Your task to perform on an android device: When is my next appointment? Image 0: 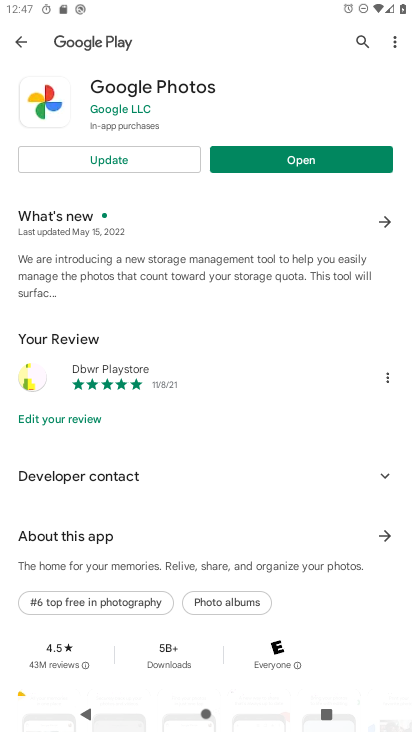
Step 0: press home button
Your task to perform on an android device: When is my next appointment? Image 1: 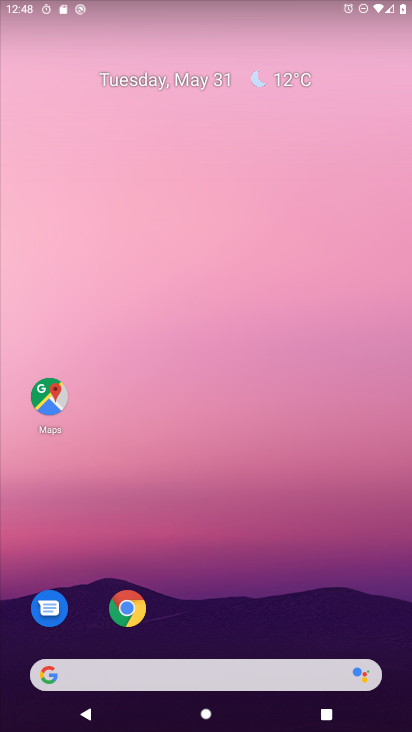
Step 1: drag from (258, 644) to (282, 0)
Your task to perform on an android device: When is my next appointment? Image 2: 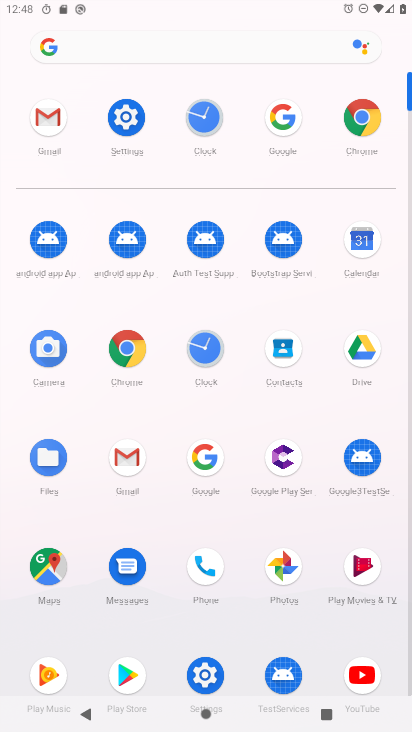
Step 2: click (359, 242)
Your task to perform on an android device: When is my next appointment? Image 3: 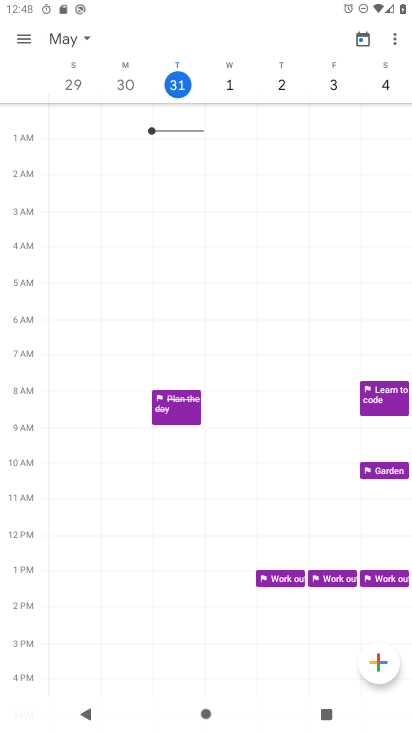
Step 3: click (19, 37)
Your task to perform on an android device: When is my next appointment? Image 4: 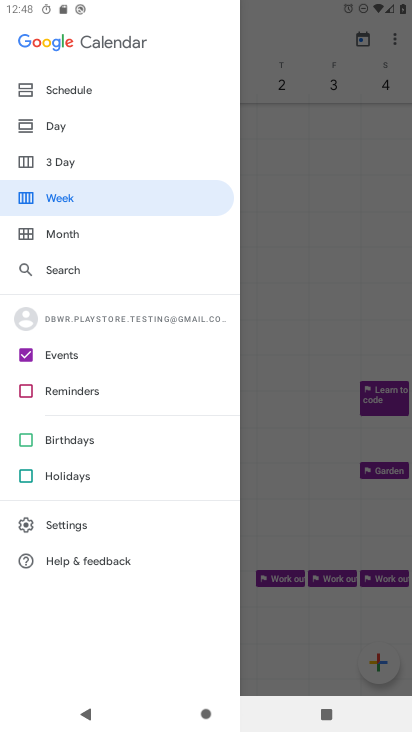
Step 4: click (44, 88)
Your task to perform on an android device: When is my next appointment? Image 5: 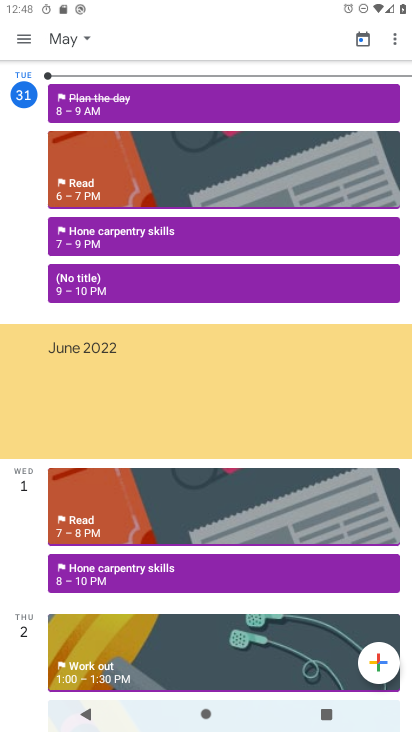
Step 5: drag from (161, 489) to (146, 182)
Your task to perform on an android device: When is my next appointment? Image 6: 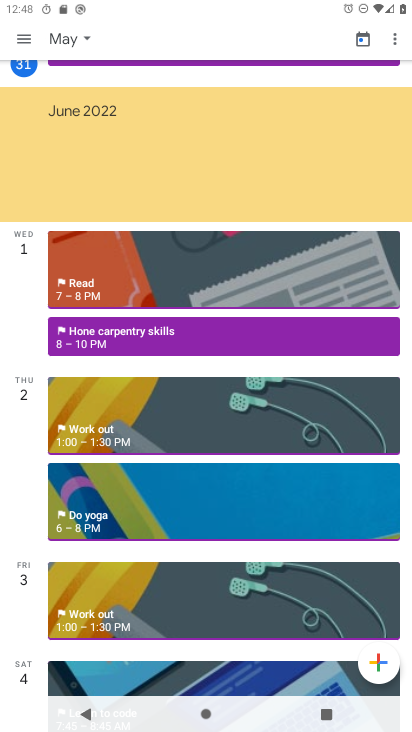
Step 6: drag from (142, 487) to (143, 198)
Your task to perform on an android device: When is my next appointment? Image 7: 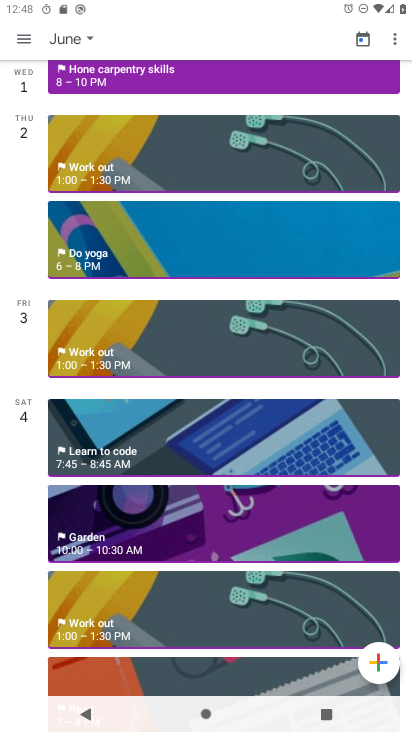
Step 7: drag from (116, 486) to (117, 292)
Your task to perform on an android device: When is my next appointment? Image 8: 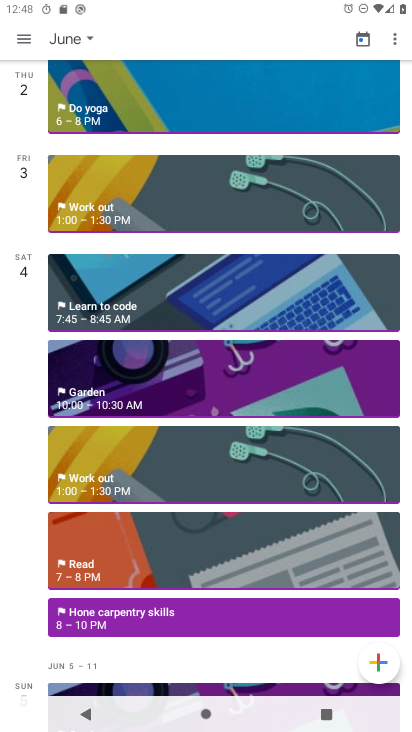
Step 8: drag from (126, 492) to (107, 168)
Your task to perform on an android device: When is my next appointment? Image 9: 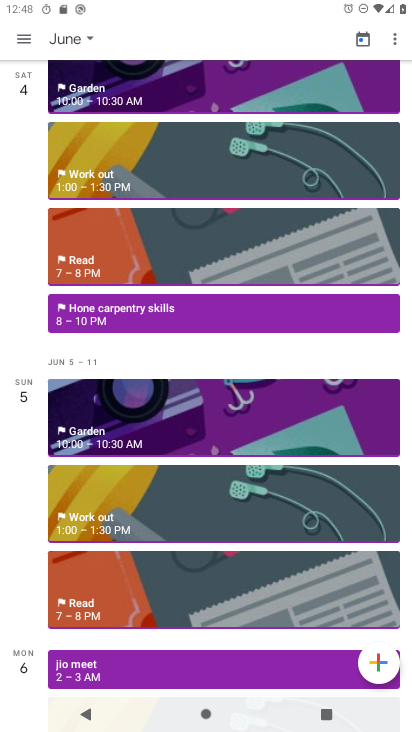
Step 9: drag from (166, 559) to (137, 144)
Your task to perform on an android device: When is my next appointment? Image 10: 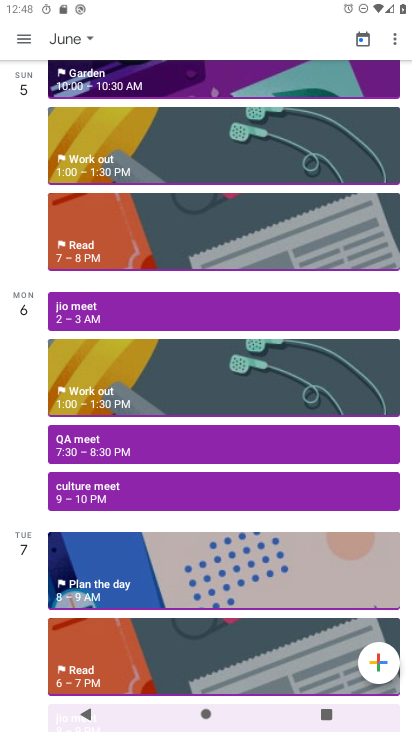
Step 10: click (143, 313)
Your task to perform on an android device: When is my next appointment? Image 11: 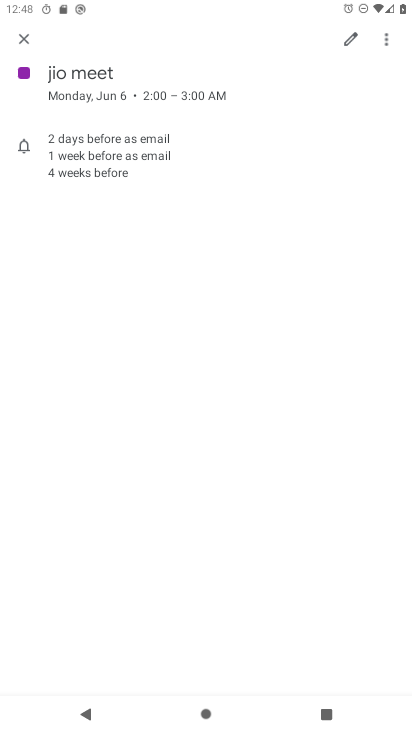
Step 11: task complete